Your task to perform on an android device: turn pop-ups on in chrome Image 0: 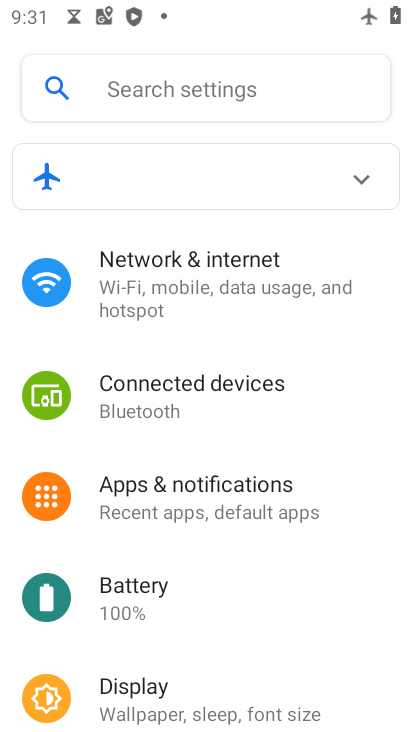
Step 0: press home button
Your task to perform on an android device: turn pop-ups on in chrome Image 1: 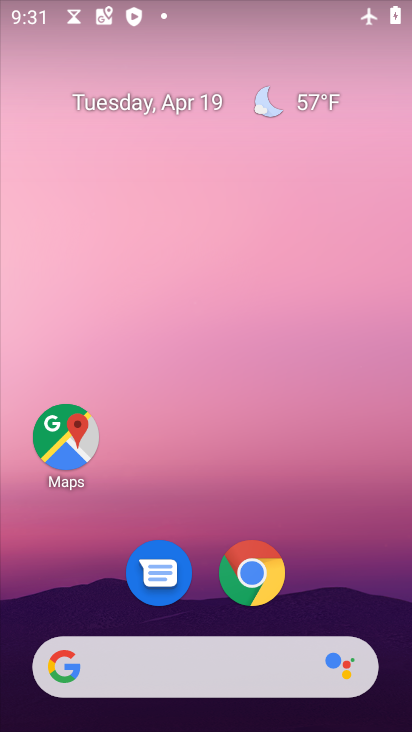
Step 1: click (258, 568)
Your task to perform on an android device: turn pop-ups on in chrome Image 2: 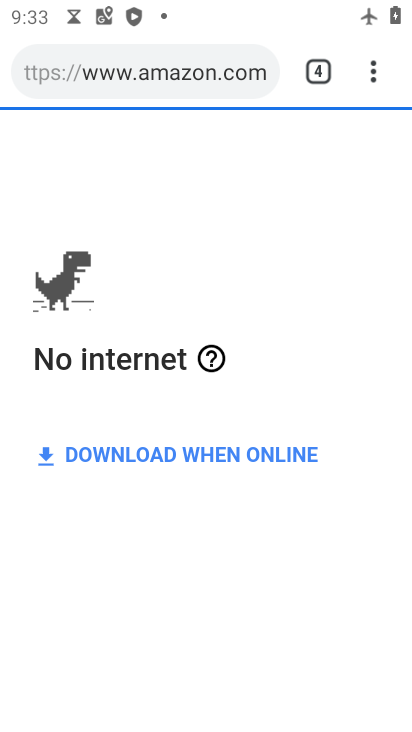
Step 2: task complete